Your task to perform on an android device: Open battery settings Image 0: 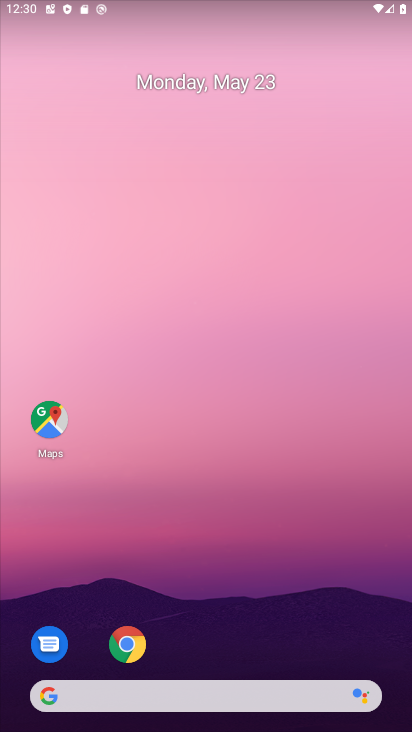
Step 0: drag from (280, 648) to (320, 87)
Your task to perform on an android device: Open battery settings Image 1: 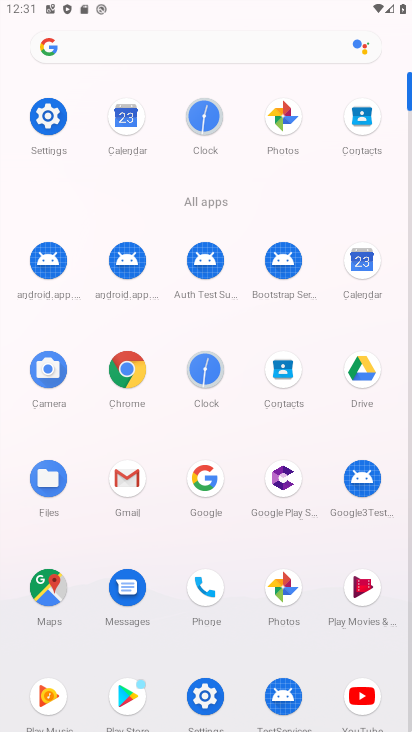
Step 1: click (43, 113)
Your task to perform on an android device: Open battery settings Image 2: 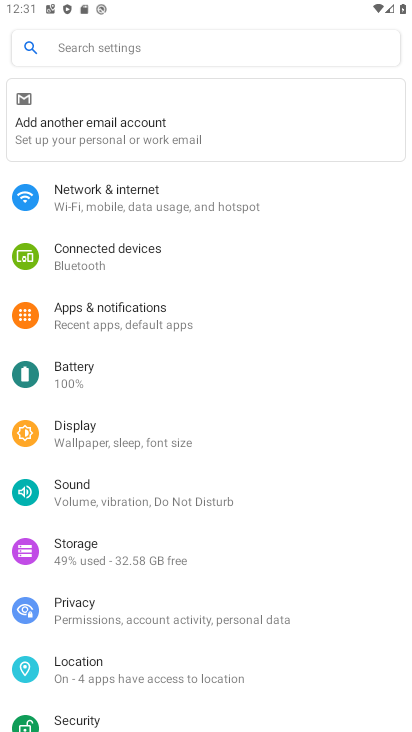
Step 2: click (94, 377)
Your task to perform on an android device: Open battery settings Image 3: 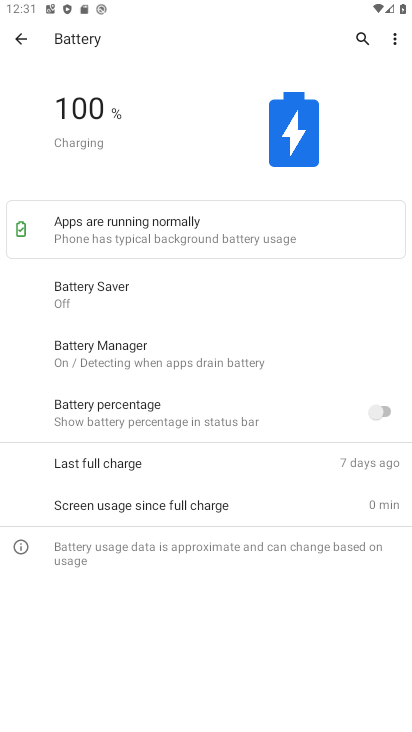
Step 3: task complete